Your task to perform on an android device: Open calendar and show me the fourth week of next month Image 0: 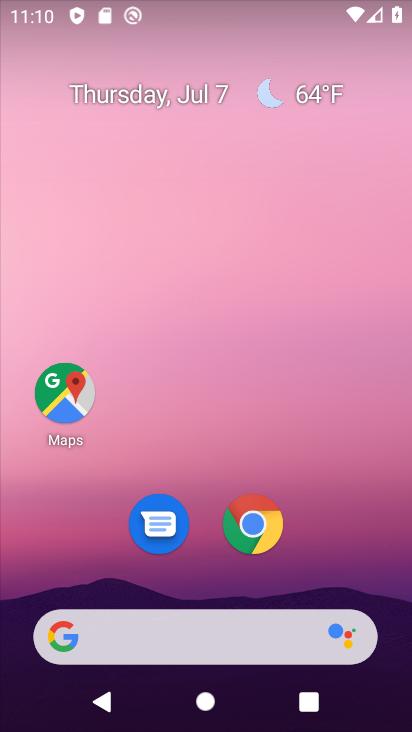
Step 0: drag from (214, 464) to (276, 0)
Your task to perform on an android device: Open calendar and show me the fourth week of next month Image 1: 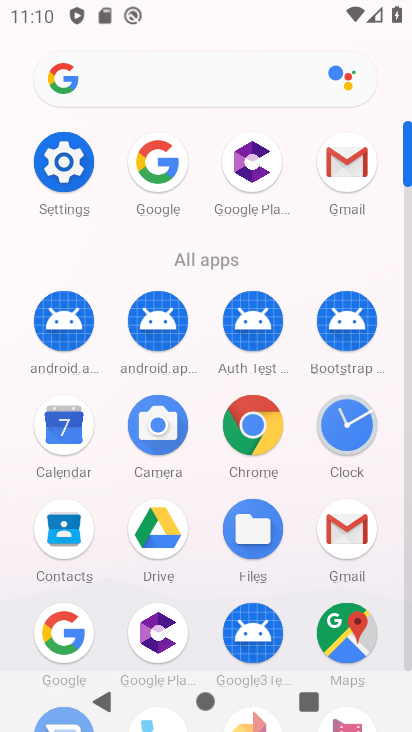
Step 1: click (59, 431)
Your task to perform on an android device: Open calendar and show me the fourth week of next month Image 2: 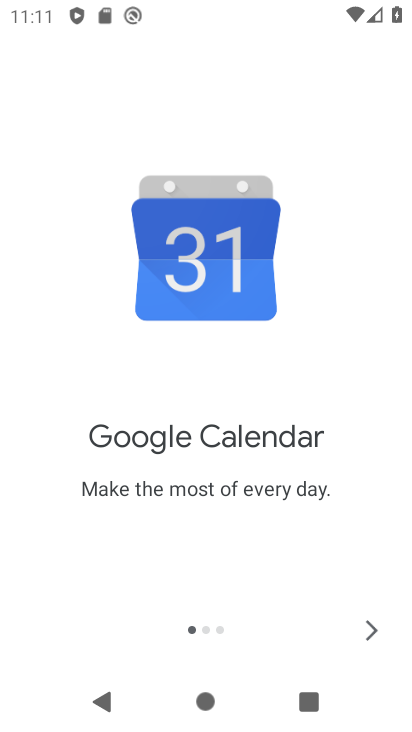
Step 2: click (370, 626)
Your task to perform on an android device: Open calendar and show me the fourth week of next month Image 3: 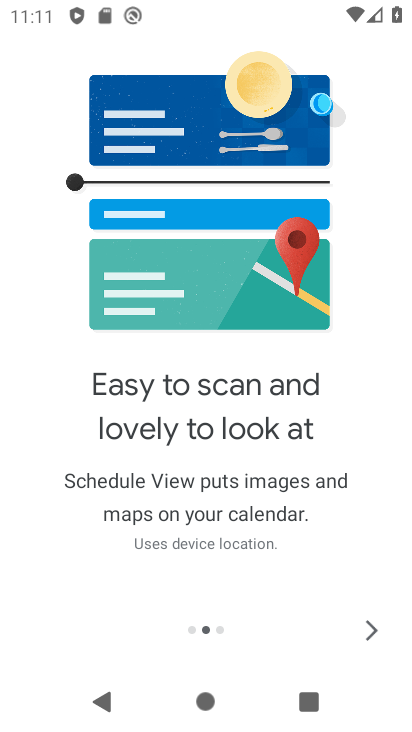
Step 3: click (370, 629)
Your task to perform on an android device: Open calendar and show me the fourth week of next month Image 4: 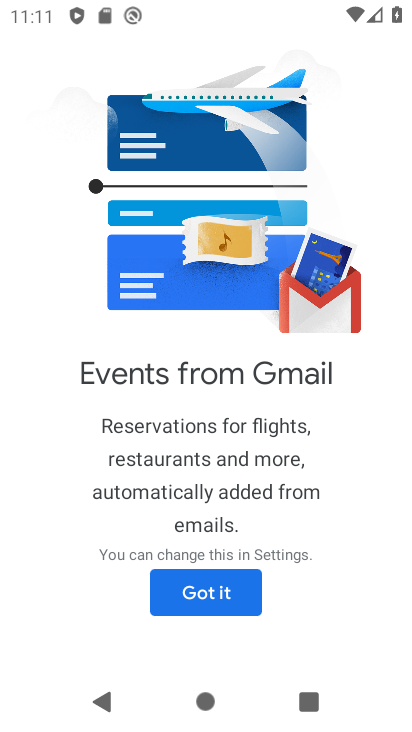
Step 4: click (241, 599)
Your task to perform on an android device: Open calendar and show me the fourth week of next month Image 5: 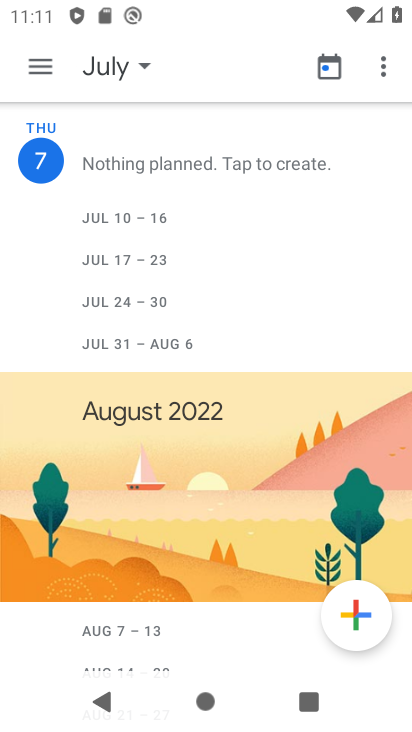
Step 5: click (38, 58)
Your task to perform on an android device: Open calendar and show me the fourth week of next month Image 6: 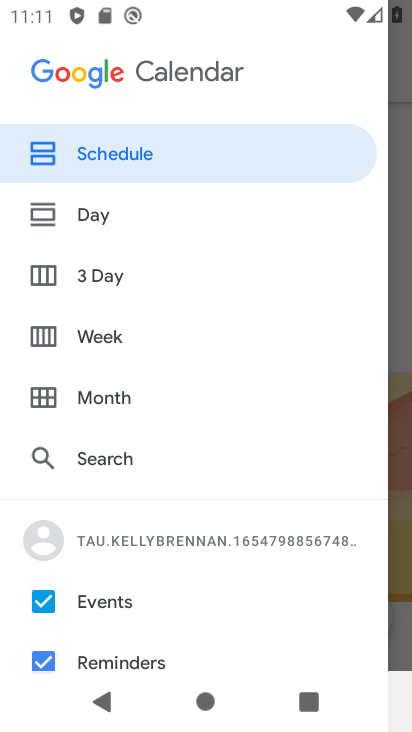
Step 6: click (80, 398)
Your task to perform on an android device: Open calendar and show me the fourth week of next month Image 7: 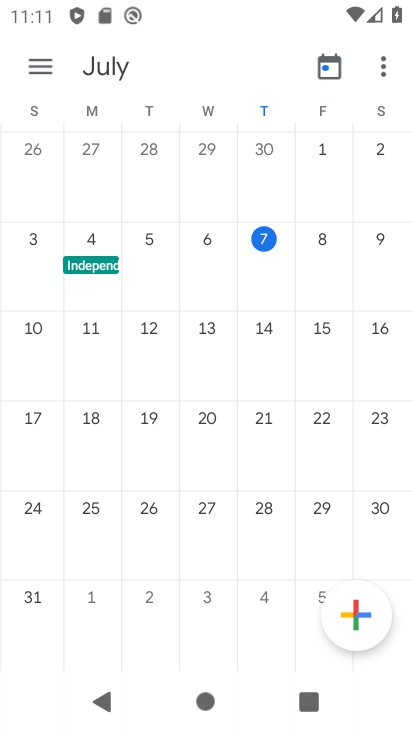
Step 7: drag from (326, 406) to (8, 335)
Your task to perform on an android device: Open calendar and show me the fourth week of next month Image 8: 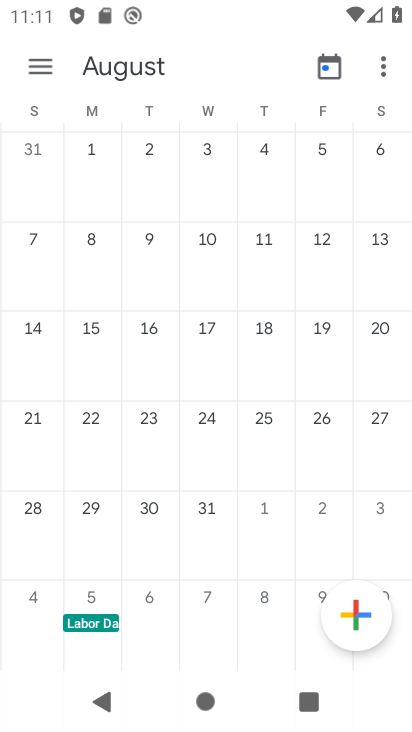
Step 8: click (35, 508)
Your task to perform on an android device: Open calendar and show me the fourth week of next month Image 9: 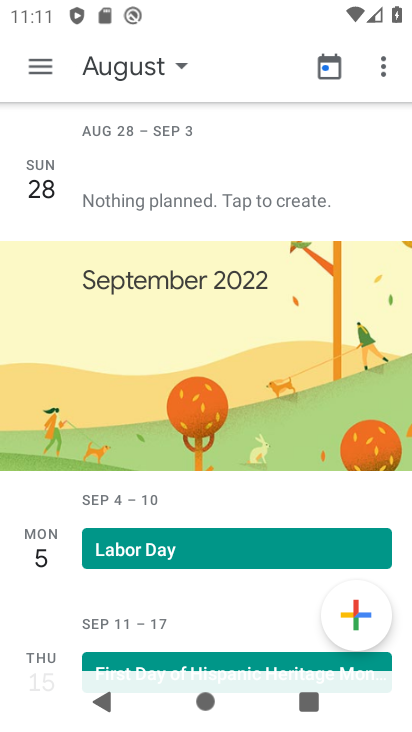
Step 9: click (37, 62)
Your task to perform on an android device: Open calendar and show me the fourth week of next month Image 10: 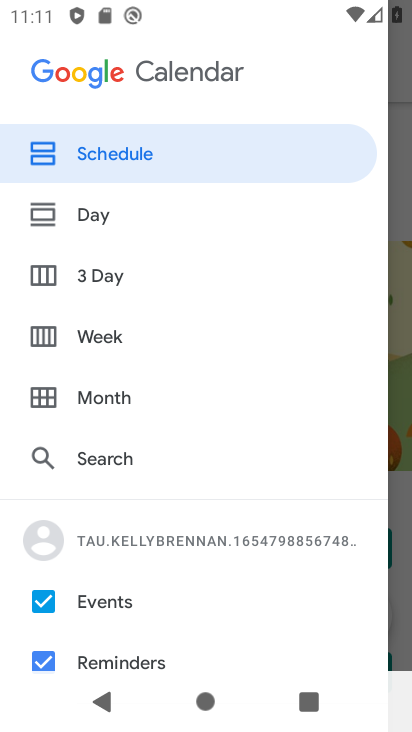
Step 10: click (35, 338)
Your task to perform on an android device: Open calendar and show me the fourth week of next month Image 11: 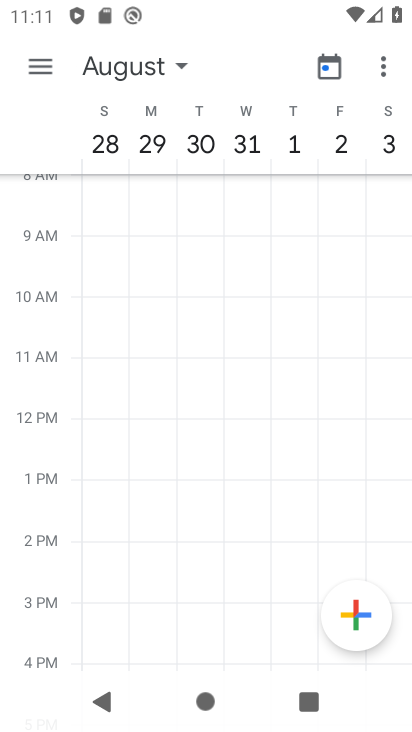
Step 11: task complete